Your task to perform on an android device: Go to Google Image 0: 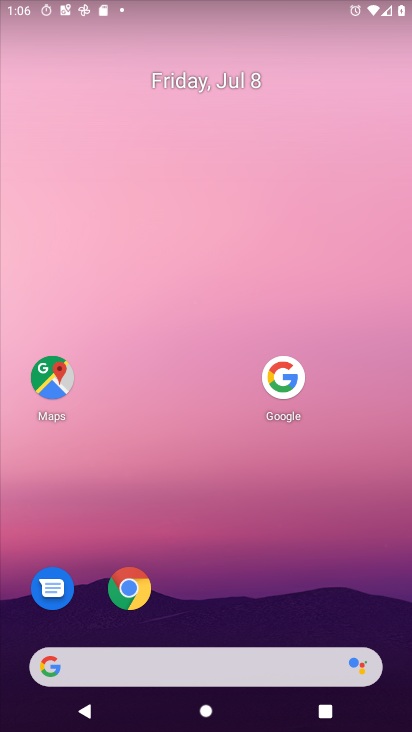
Step 0: click (273, 378)
Your task to perform on an android device: Go to Google Image 1: 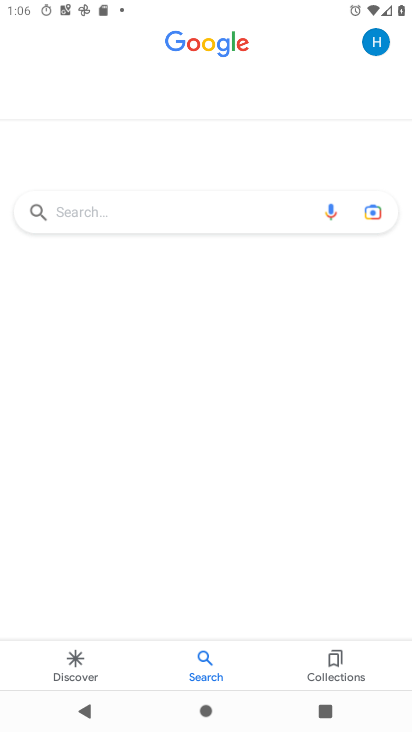
Step 1: task complete